Your task to perform on an android device: Open Google Chrome Image 0: 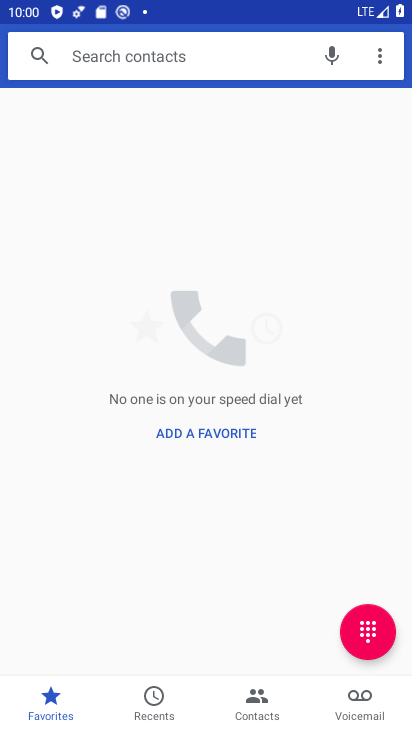
Step 0: press home button
Your task to perform on an android device: Open Google Chrome Image 1: 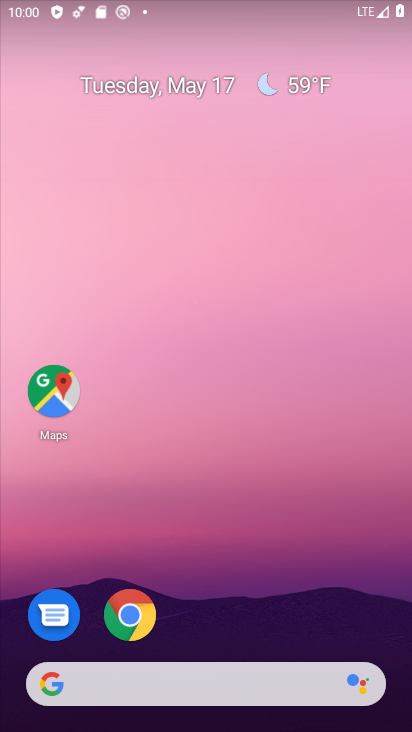
Step 1: click (125, 612)
Your task to perform on an android device: Open Google Chrome Image 2: 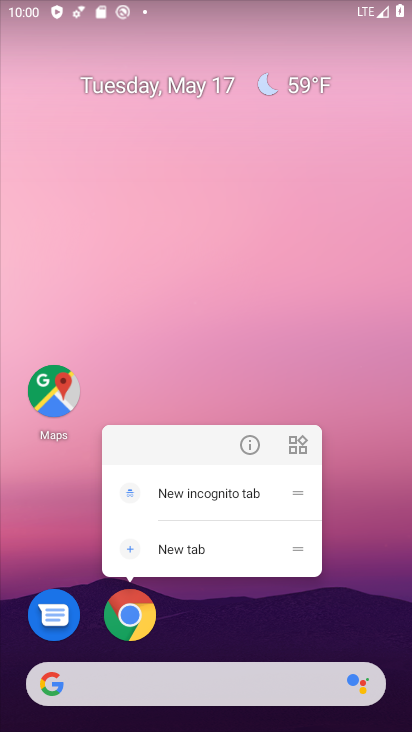
Step 2: click (132, 613)
Your task to perform on an android device: Open Google Chrome Image 3: 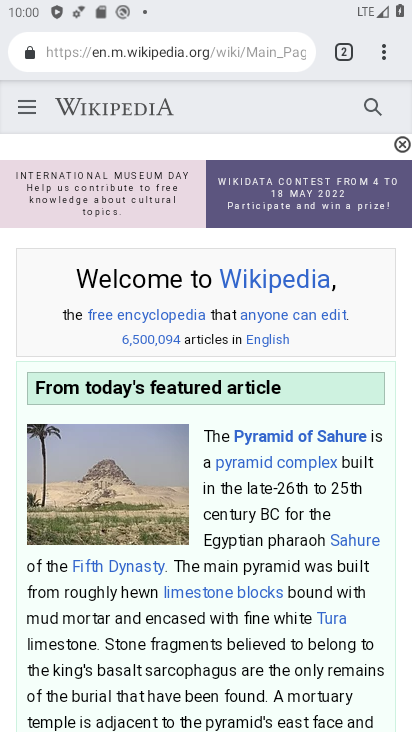
Step 3: task complete